Your task to perform on an android device: Go to notification settings Image 0: 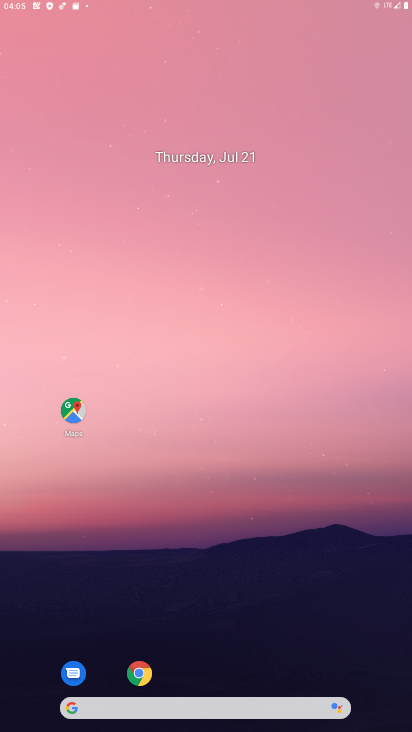
Step 0: drag from (346, 380) to (397, 245)
Your task to perform on an android device: Go to notification settings Image 1: 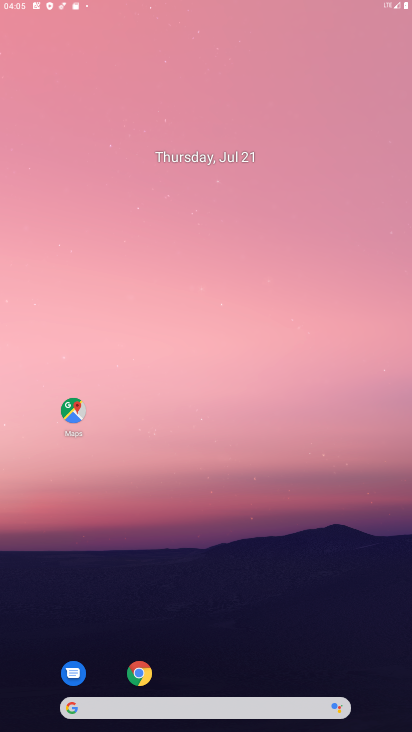
Step 1: drag from (209, 517) to (307, 191)
Your task to perform on an android device: Go to notification settings Image 2: 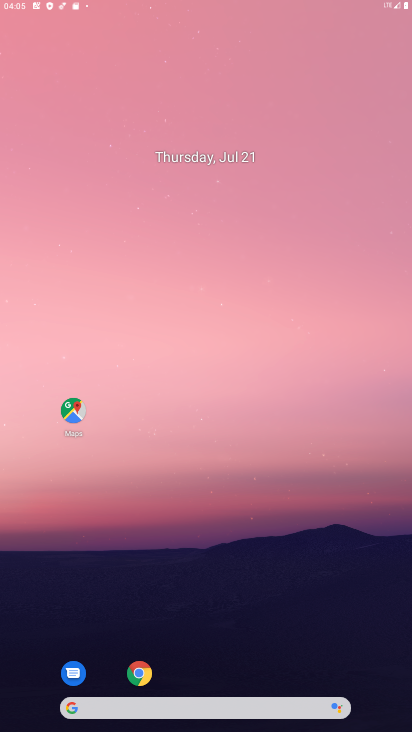
Step 2: drag from (242, 640) to (293, 122)
Your task to perform on an android device: Go to notification settings Image 3: 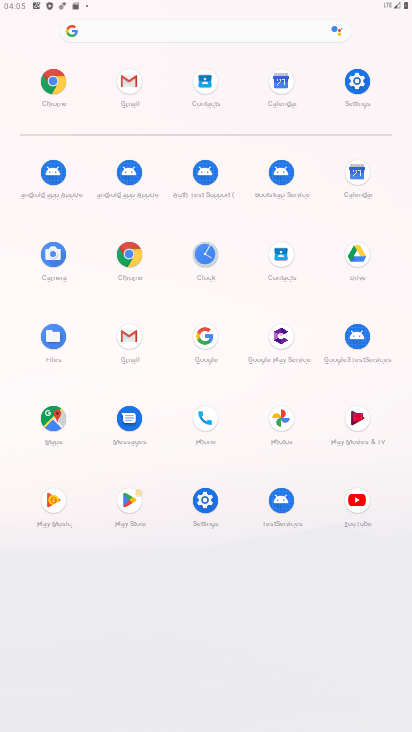
Step 3: click (359, 82)
Your task to perform on an android device: Go to notification settings Image 4: 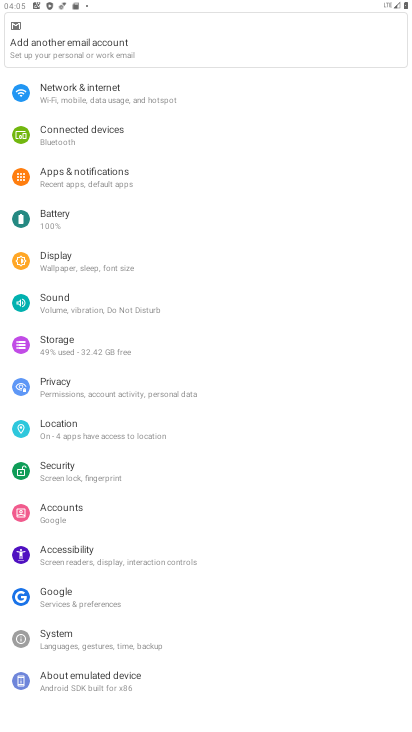
Step 4: click (86, 176)
Your task to perform on an android device: Go to notification settings Image 5: 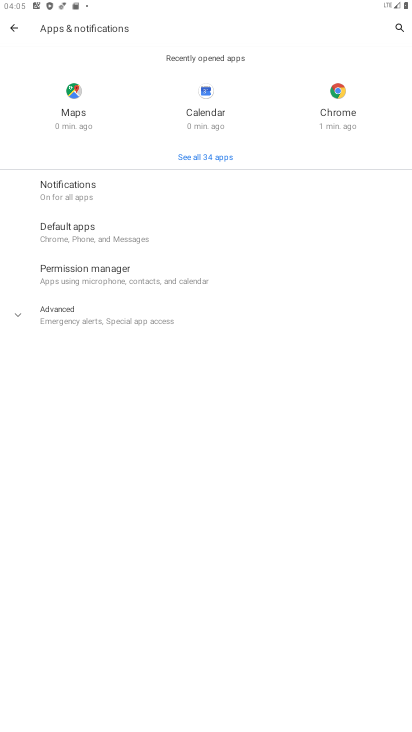
Step 5: click (75, 176)
Your task to perform on an android device: Go to notification settings Image 6: 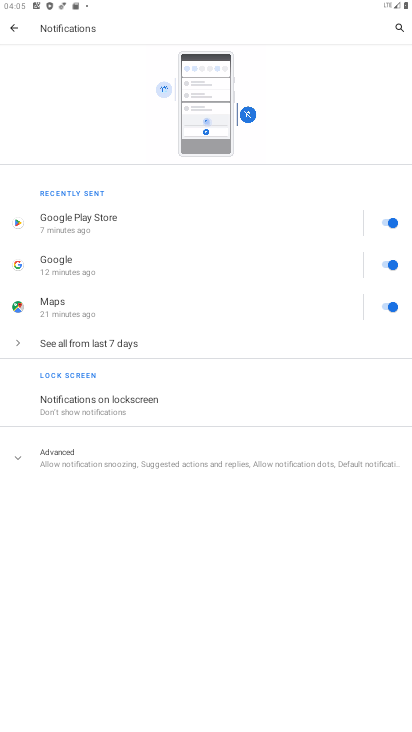
Step 6: task complete